Your task to perform on an android device: Play the last video I watched on Youtube Image 0: 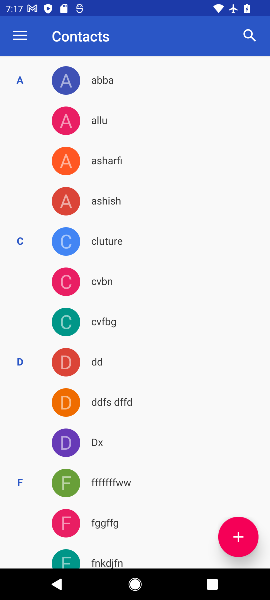
Step 0: press home button
Your task to perform on an android device: Play the last video I watched on Youtube Image 1: 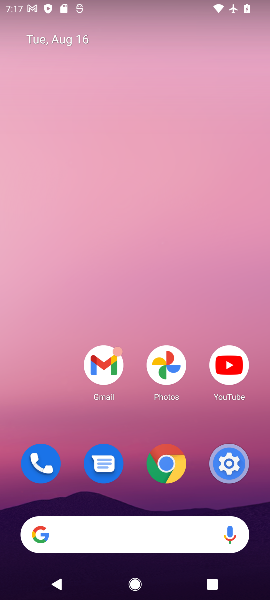
Step 1: drag from (119, 490) to (132, 3)
Your task to perform on an android device: Play the last video I watched on Youtube Image 2: 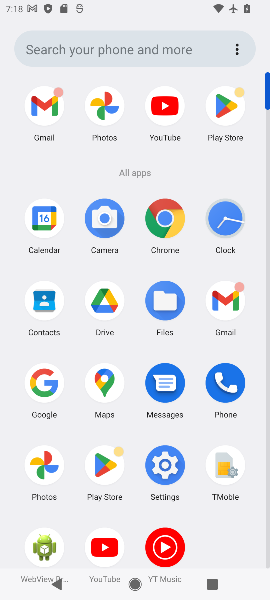
Step 2: click (98, 536)
Your task to perform on an android device: Play the last video I watched on Youtube Image 3: 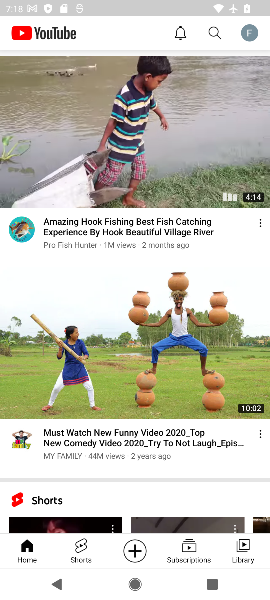
Step 3: click (241, 547)
Your task to perform on an android device: Play the last video I watched on Youtube Image 4: 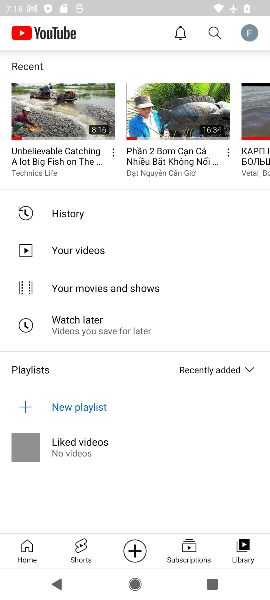
Step 4: click (57, 120)
Your task to perform on an android device: Play the last video I watched on Youtube Image 5: 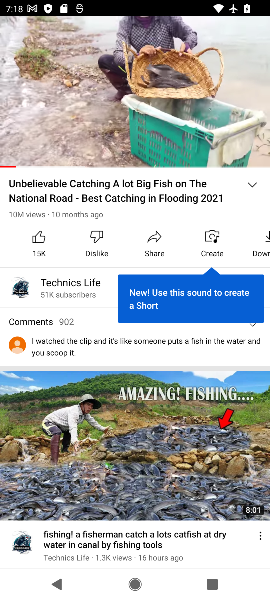
Step 5: task complete